Your task to perform on an android device: Open eBay Image 0: 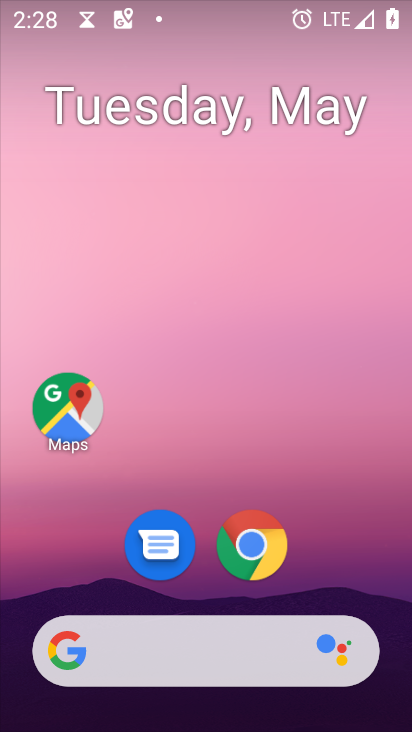
Step 0: drag from (332, 515) to (211, 5)
Your task to perform on an android device: Open eBay Image 1: 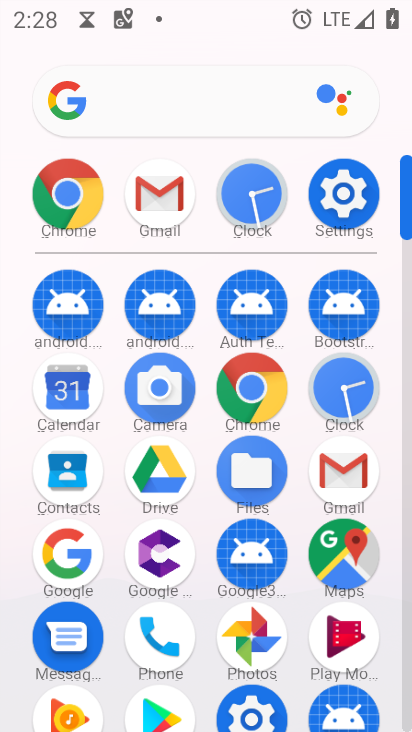
Step 1: drag from (2, 604) to (9, 206)
Your task to perform on an android device: Open eBay Image 2: 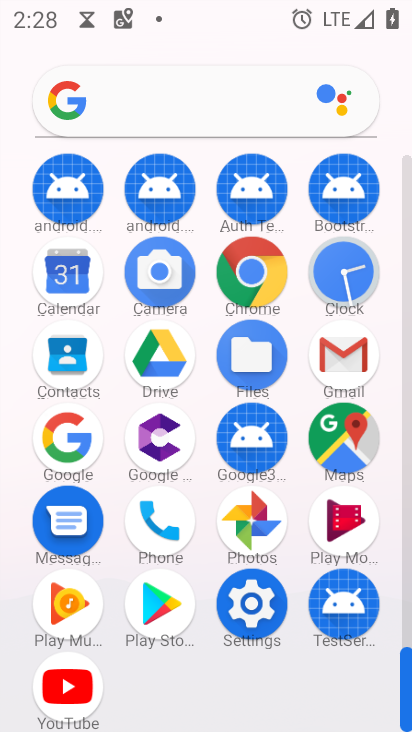
Step 2: click (254, 269)
Your task to perform on an android device: Open eBay Image 3: 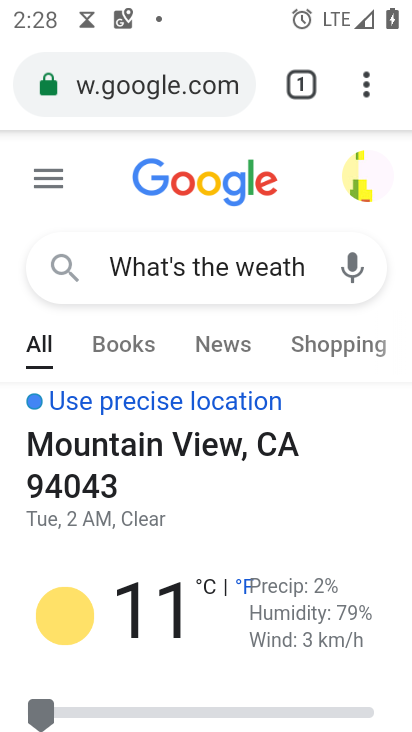
Step 3: click (168, 84)
Your task to perform on an android device: Open eBay Image 4: 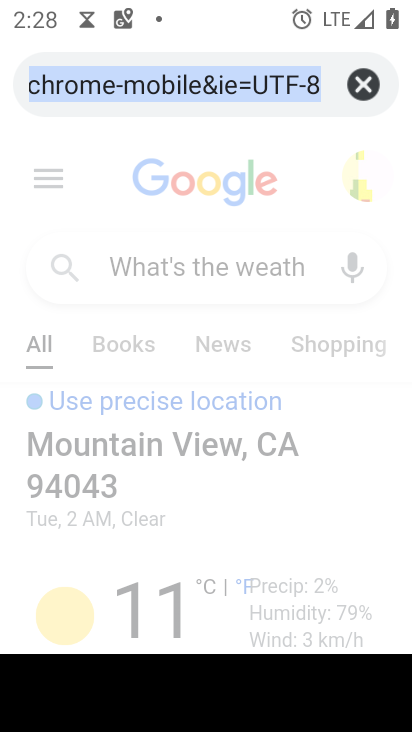
Step 4: click (363, 75)
Your task to perform on an android device: Open eBay Image 5: 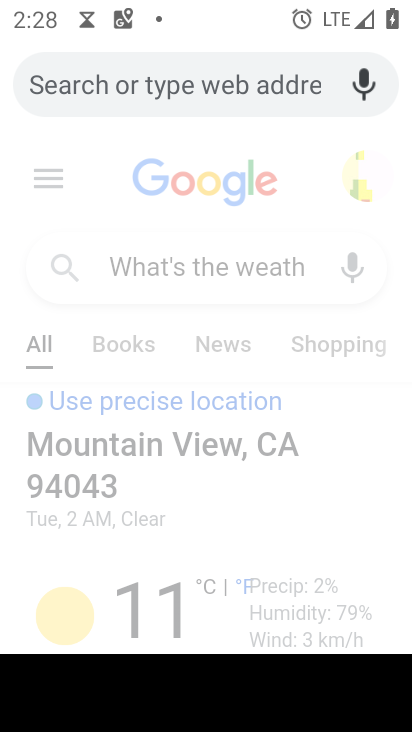
Step 5: type "eBay"
Your task to perform on an android device: Open eBay Image 6: 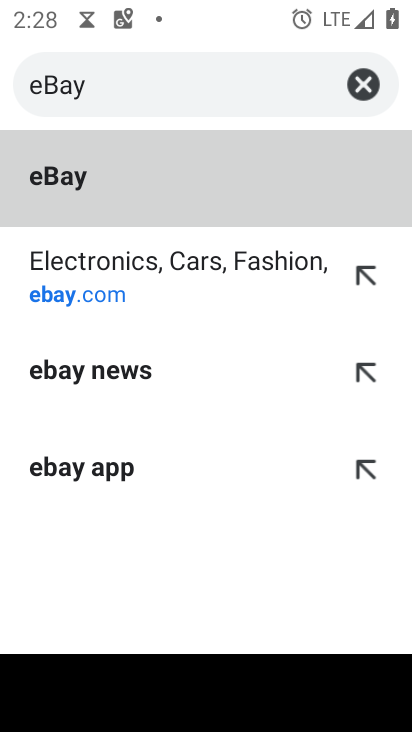
Step 6: click (139, 190)
Your task to perform on an android device: Open eBay Image 7: 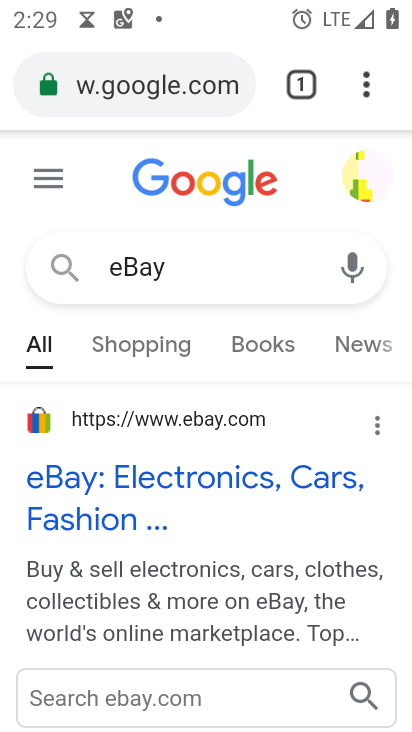
Step 7: click (81, 476)
Your task to perform on an android device: Open eBay Image 8: 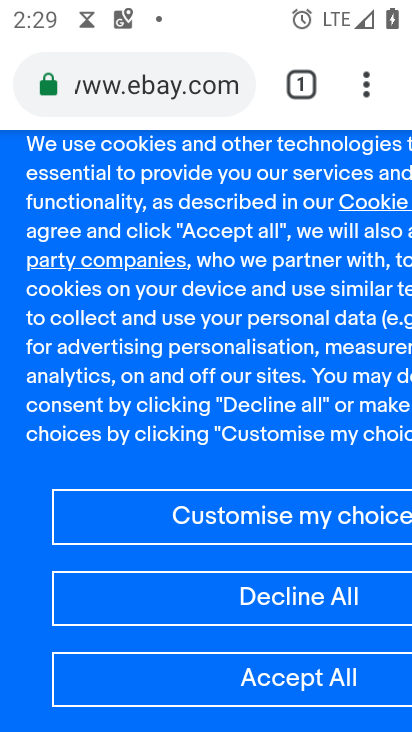
Step 8: task complete